Your task to perform on an android device: open chrome privacy settings Image 0: 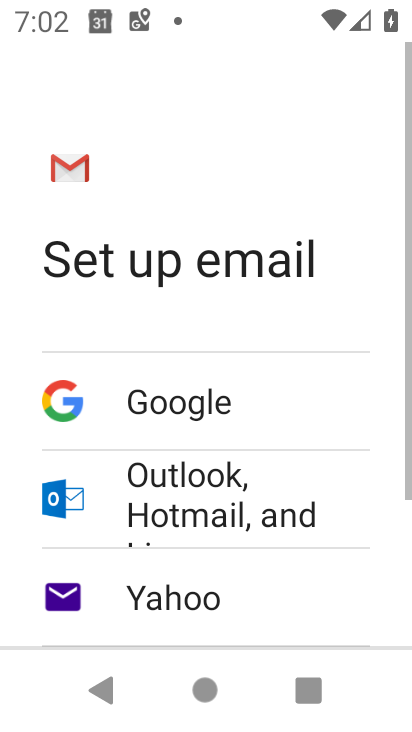
Step 0: press home button
Your task to perform on an android device: open chrome privacy settings Image 1: 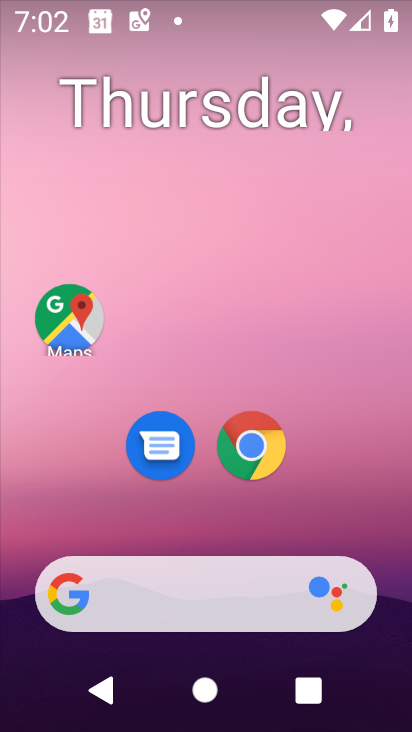
Step 1: click (255, 454)
Your task to perform on an android device: open chrome privacy settings Image 2: 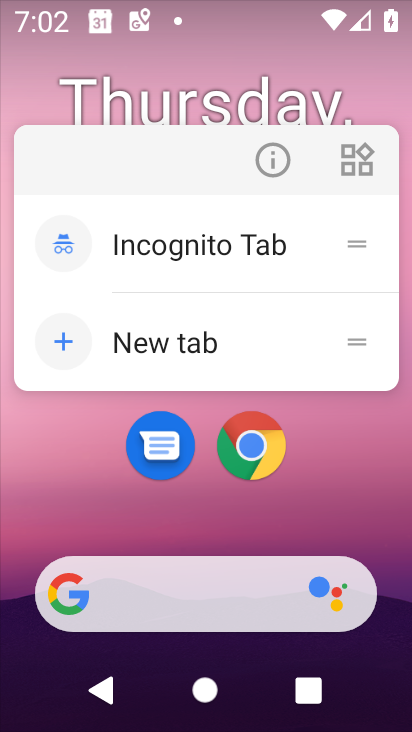
Step 2: click (255, 454)
Your task to perform on an android device: open chrome privacy settings Image 3: 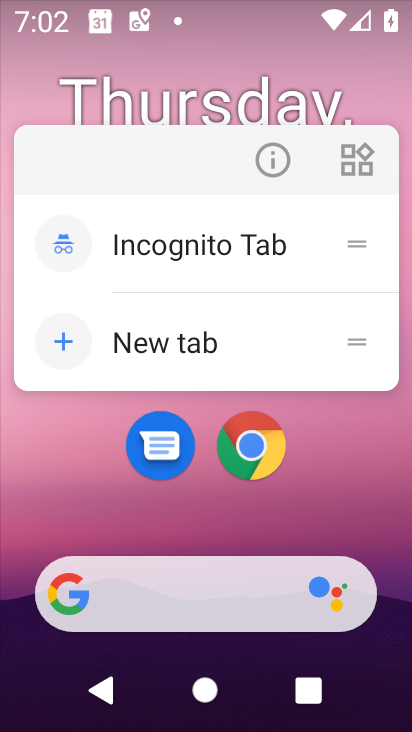
Step 3: click (255, 454)
Your task to perform on an android device: open chrome privacy settings Image 4: 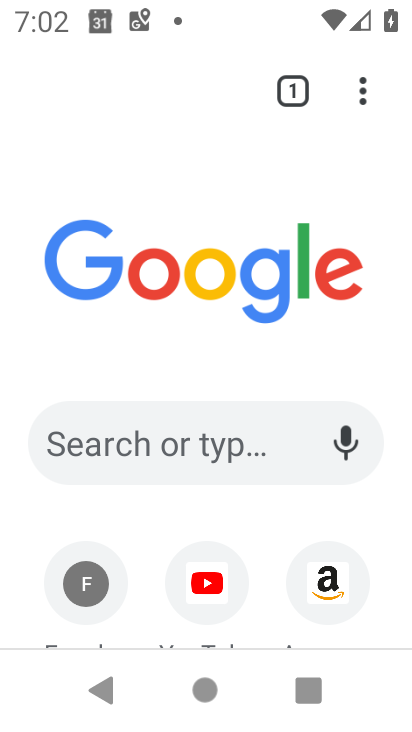
Step 4: click (366, 80)
Your task to perform on an android device: open chrome privacy settings Image 5: 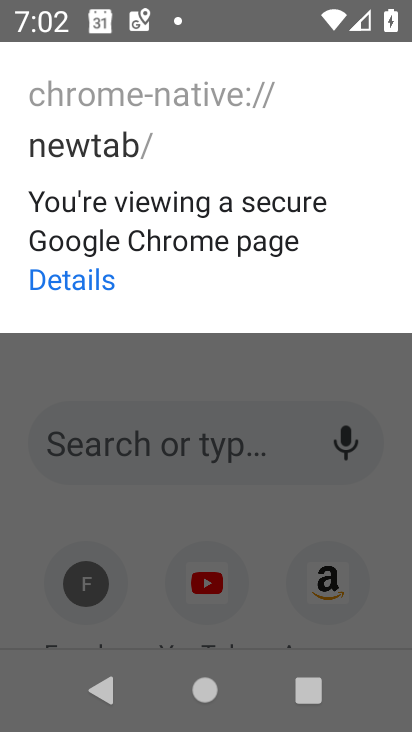
Step 5: click (366, 79)
Your task to perform on an android device: open chrome privacy settings Image 6: 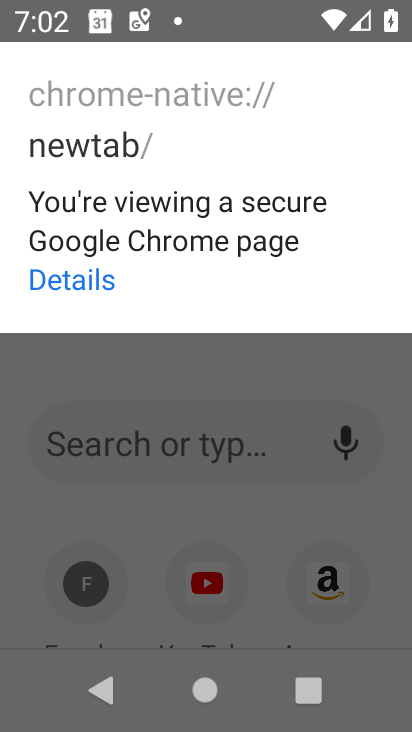
Step 6: press back button
Your task to perform on an android device: open chrome privacy settings Image 7: 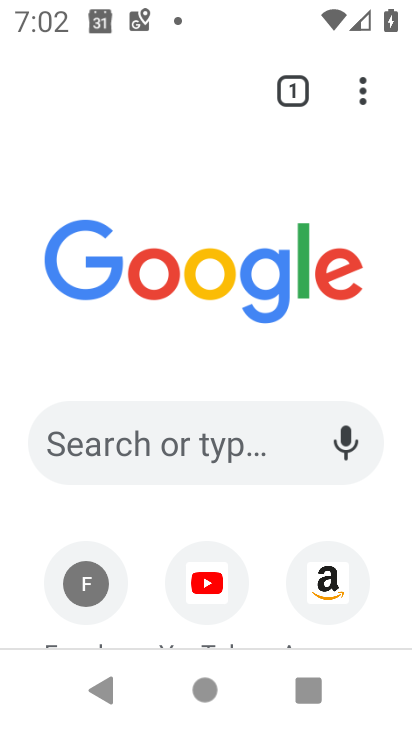
Step 7: click (360, 88)
Your task to perform on an android device: open chrome privacy settings Image 8: 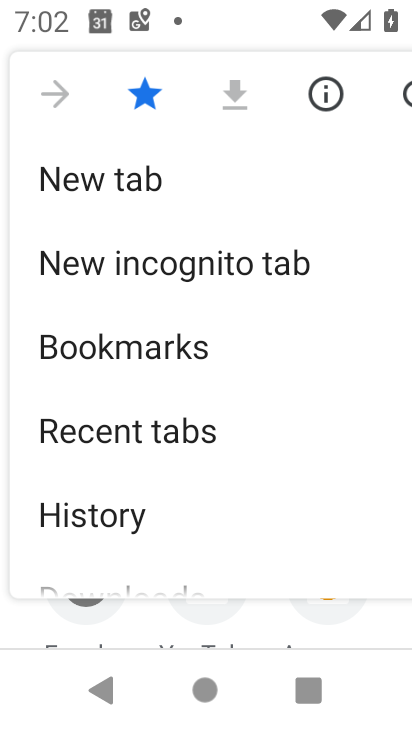
Step 8: click (98, 530)
Your task to perform on an android device: open chrome privacy settings Image 9: 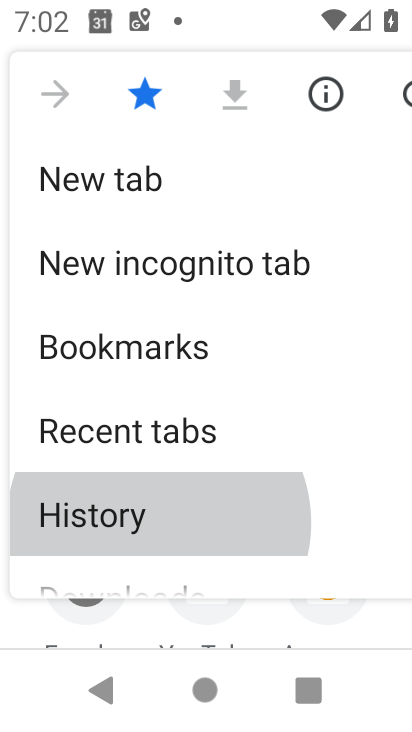
Step 9: drag from (157, 367) to (156, 150)
Your task to perform on an android device: open chrome privacy settings Image 10: 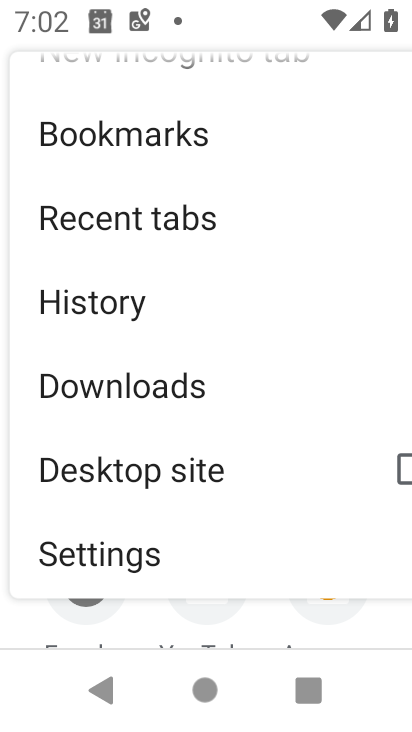
Step 10: click (103, 557)
Your task to perform on an android device: open chrome privacy settings Image 11: 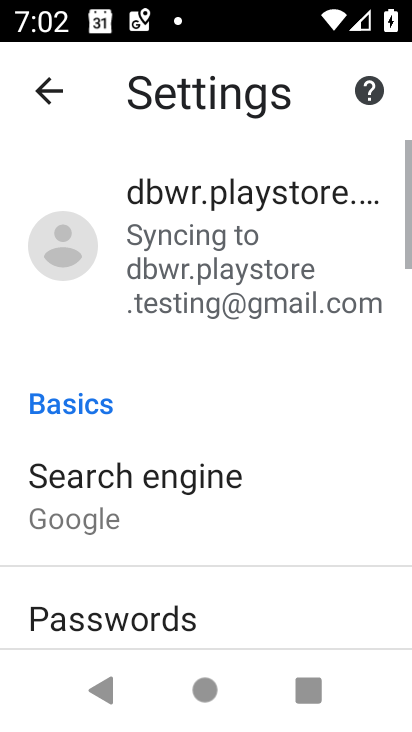
Step 11: drag from (103, 558) to (95, 101)
Your task to perform on an android device: open chrome privacy settings Image 12: 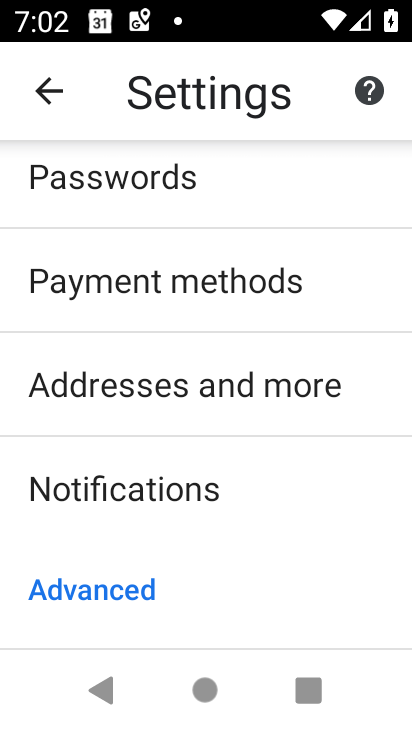
Step 12: drag from (142, 589) to (188, 153)
Your task to perform on an android device: open chrome privacy settings Image 13: 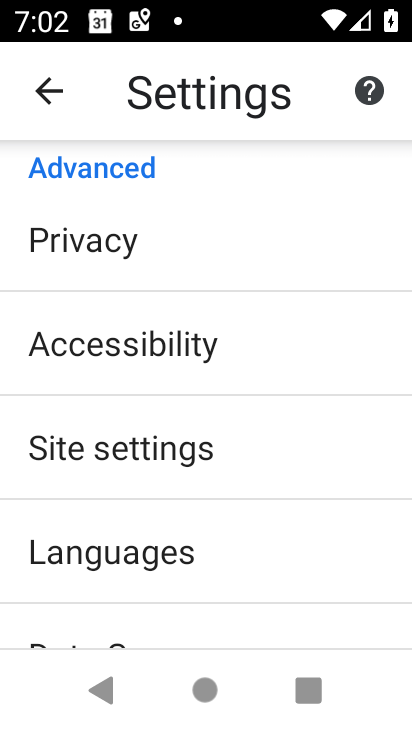
Step 13: click (104, 253)
Your task to perform on an android device: open chrome privacy settings Image 14: 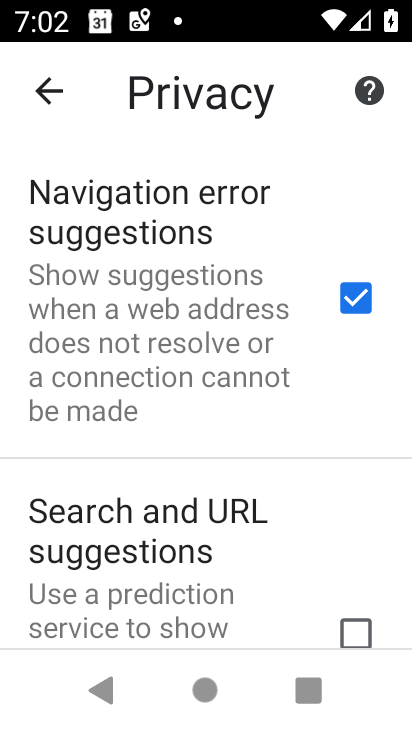
Step 14: task complete